Your task to perform on an android device: Open ESPN.com Image 0: 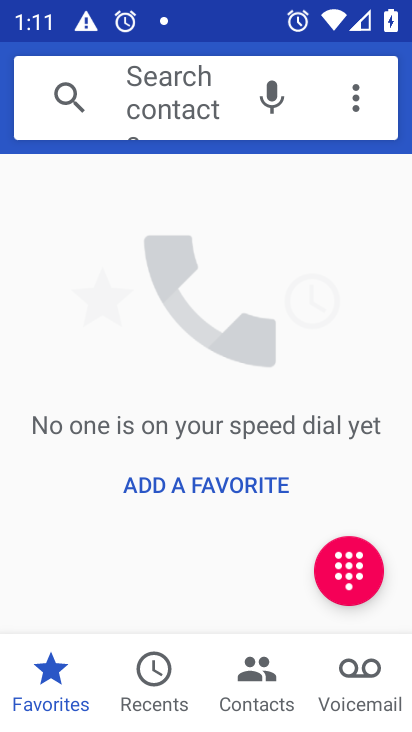
Step 0: press home button
Your task to perform on an android device: Open ESPN.com Image 1: 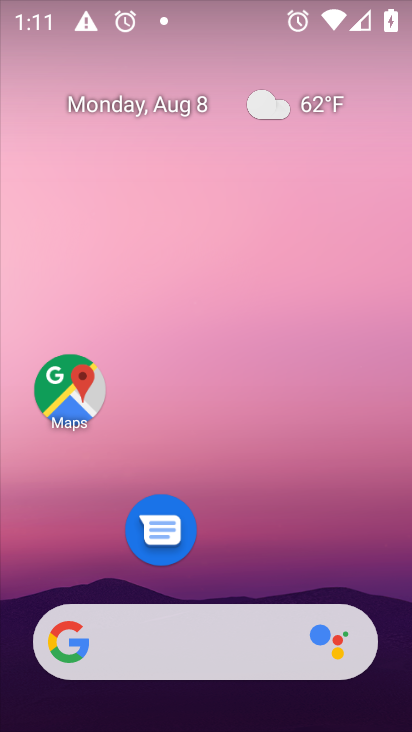
Step 1: drag from (247, 596) to (262, 124)
Your task to perform on an android device: Open ESPN.com Image 2: 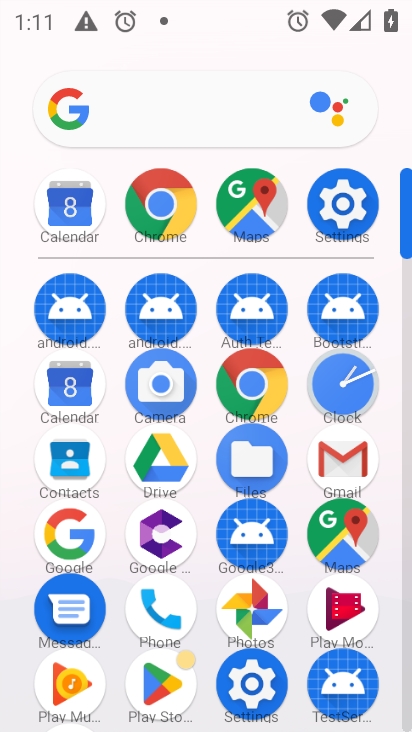
Step 2: click (160, 203)
Your task to perform on an android device: Open ESPN.com Image 3: 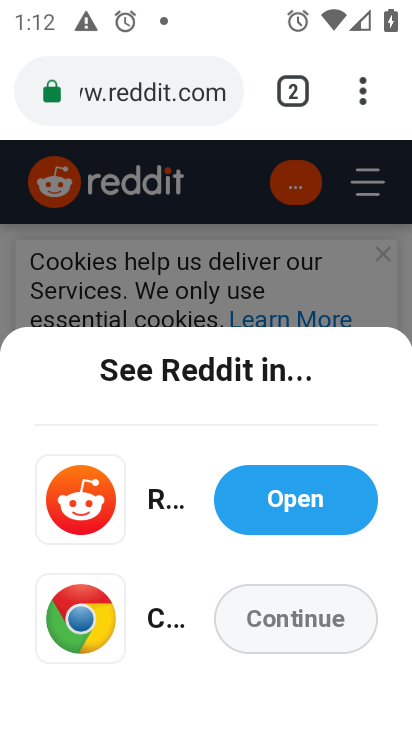
Step 3: drag from (364, 99) to (79, 186)
Your task to perform on an android device: Open ESPN.com Image 4: 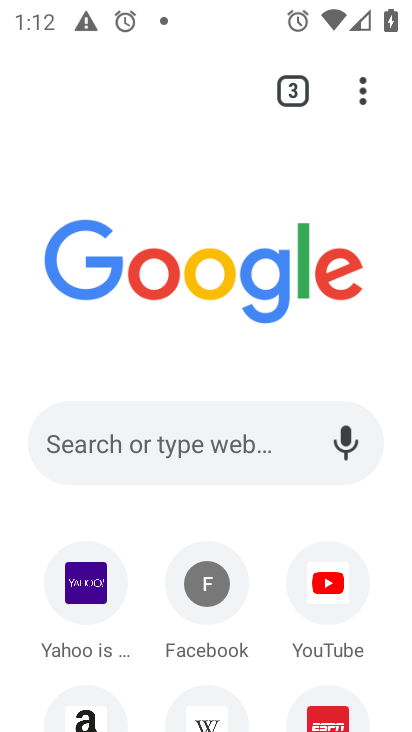
Step 4: click (335, 712)
Your task to perform on an android device: Open ESPN.com Image 5: 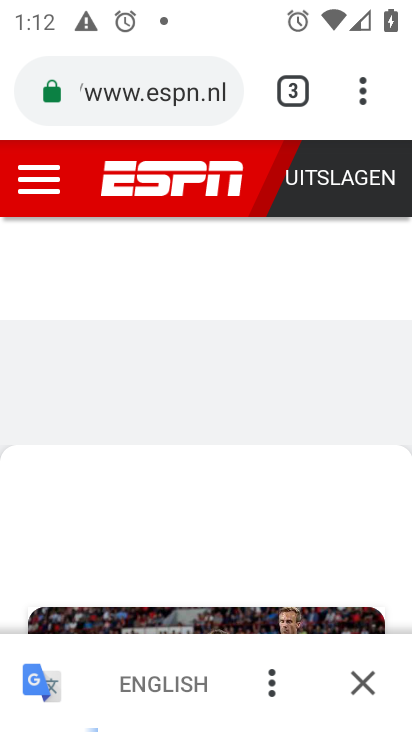
Step 5: task complete